Your task to perform on an android device: Go to Google maps Image 0: 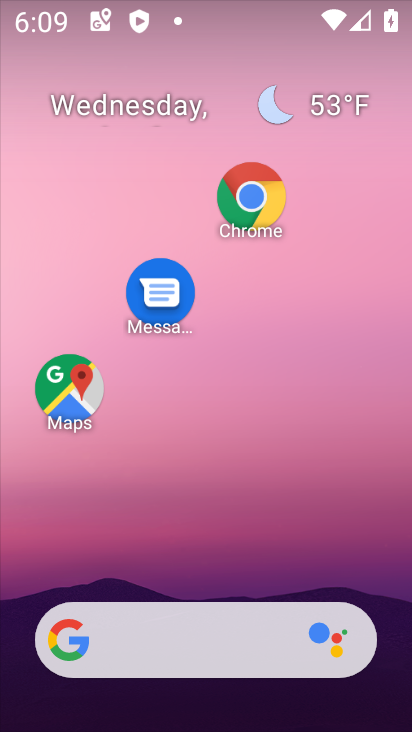
Step 0: click (66, 389)
Your task to perform on an android device: Go to Google maps Image 1: 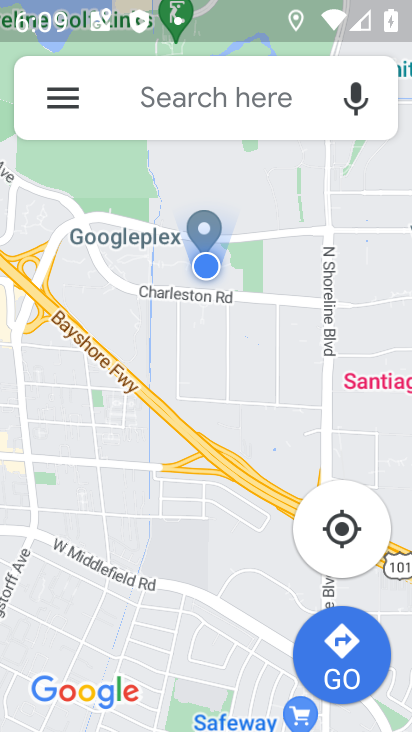
Step 1: task complete